Your task to perform on an android device: open wifi settings Image 0: 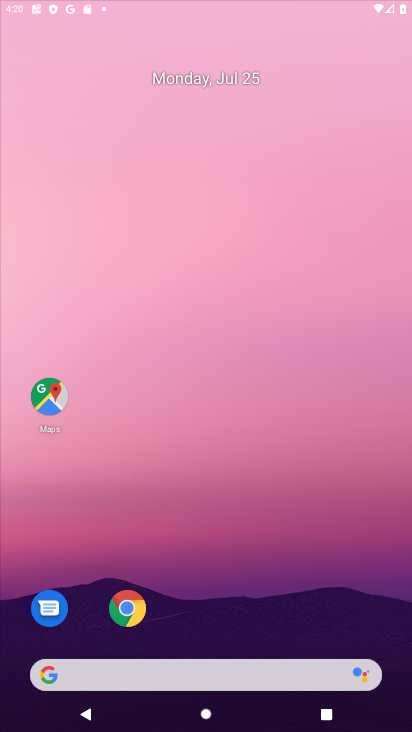
Step 0: press home button
Your task to perform on an android device: open wifi settings Image 1: 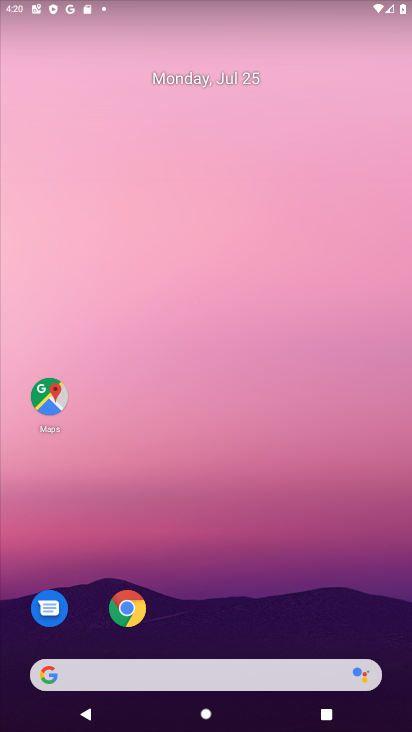
Step 1: drag from (218, 632) to (230, 88)
Your task to perform on an android device: open wifi settings Image 2: 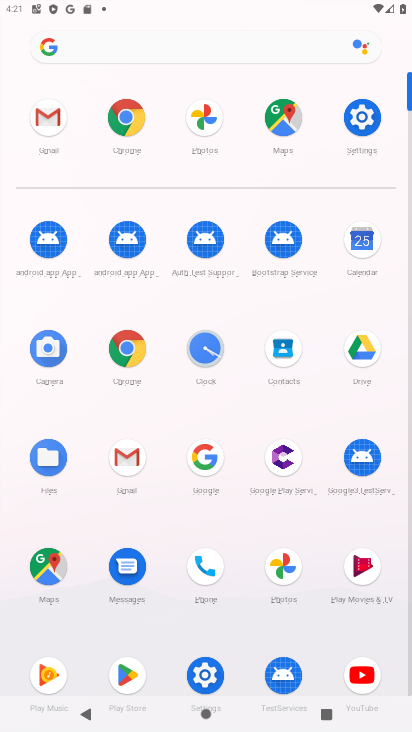
Step 2: click (360, 114)
Your task to perform on an android device: open wifi settings Image 3: 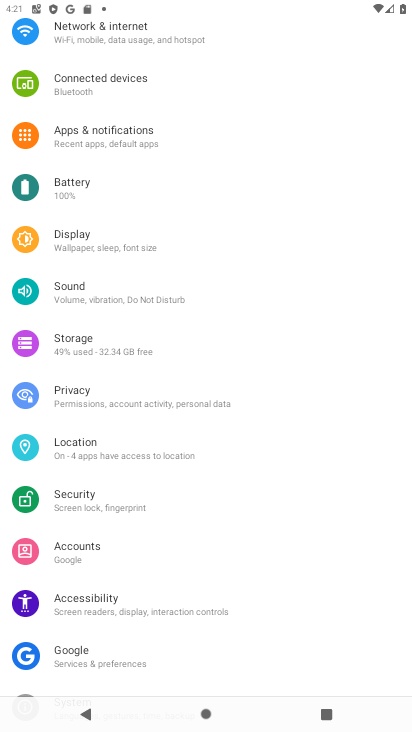
Step 3: click (120, 32)
Your task to perform on an android device: open wifi settings Image 4: 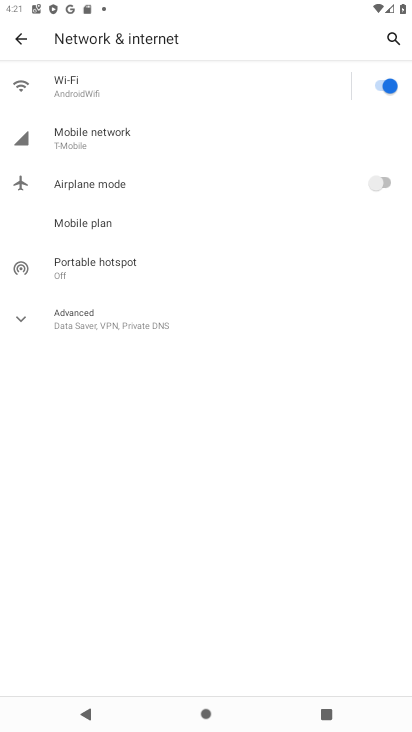
Step 4: click (131, 90)
Your task to perform on an android device: open wifi settings Image 5: 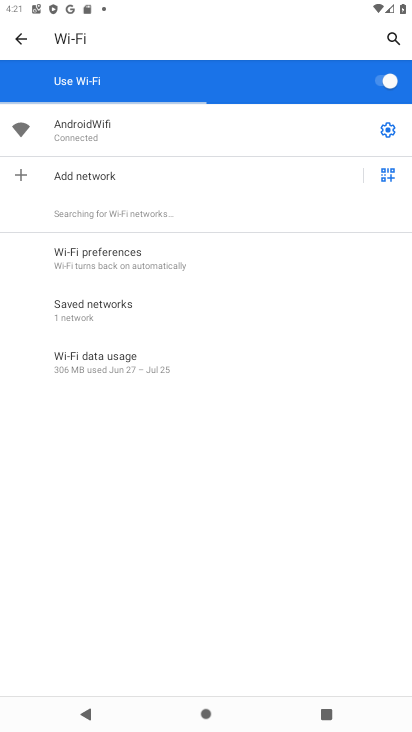
Step 5: task complete